Your task to perform on an android device: turn off notifications settings in the gmail app Image 0: 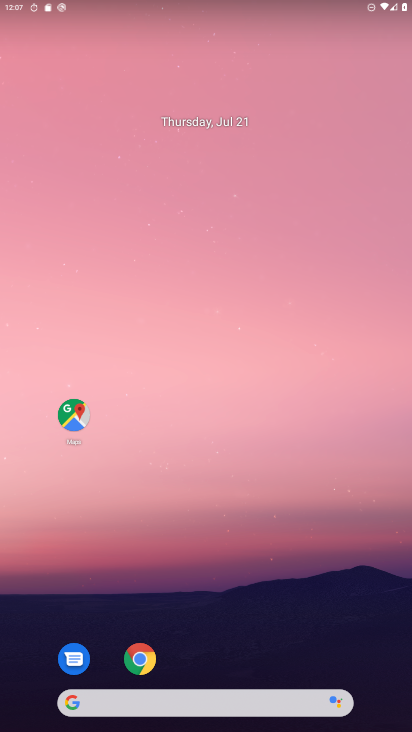
Step 0: drag from (242, 140) to (242, 89)
Your task to perform on an android device: turn off notifications settings in the gmail app Image 1: 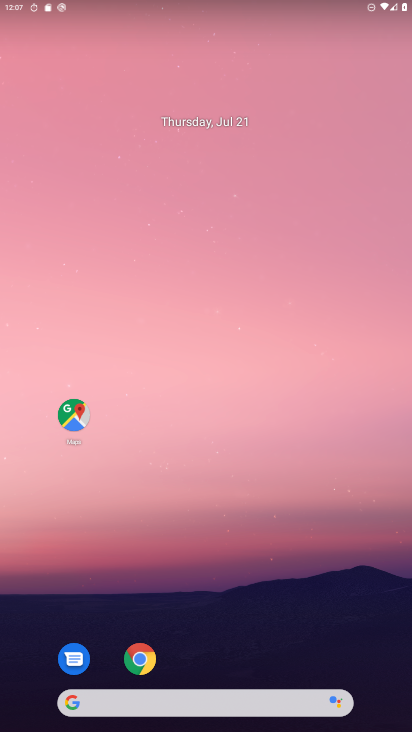
Step 1: drag from (278, 562) to (225, 56)
Your task to perform on an android device: turn off notifications settings in the gmail app Image 2: 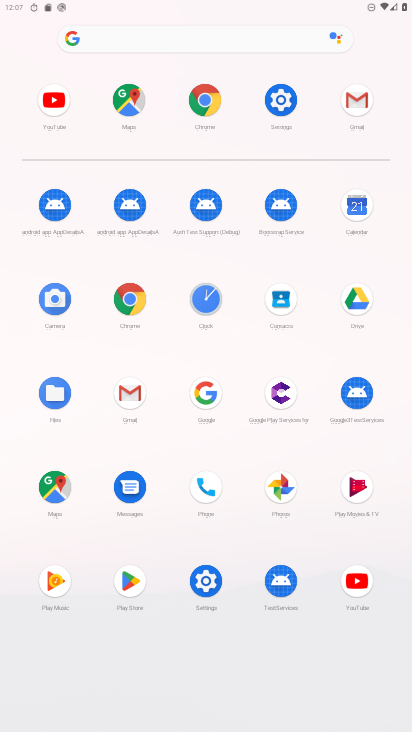
Step 2: click (355, 103)
Your task to perform on an android device: turn off notifications settings in the gmail app Image 3: 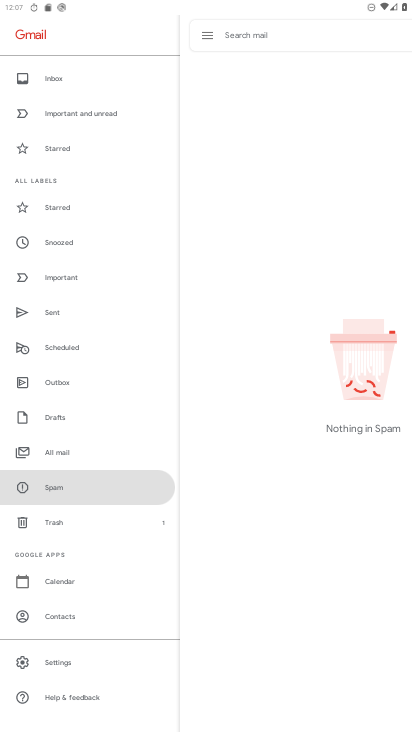
Step 3: click (71, 658)
Your task to perform on an android device: turn off notifications settings in the gmail app Image 4: 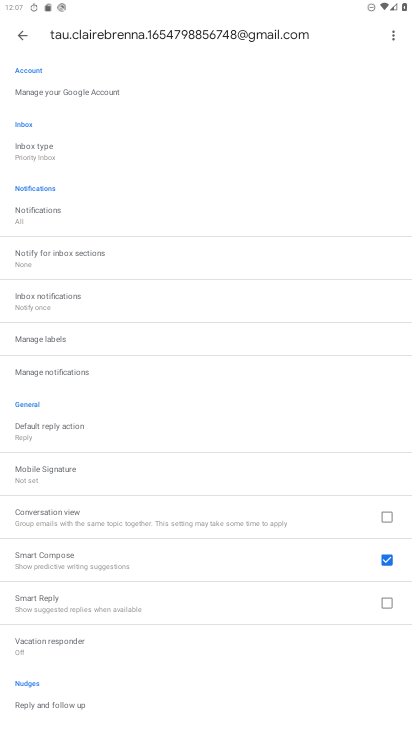
Step 4: click (66, 375)
Your task to perform on an android device: turn off notifications settings in the gmail app Image 5: 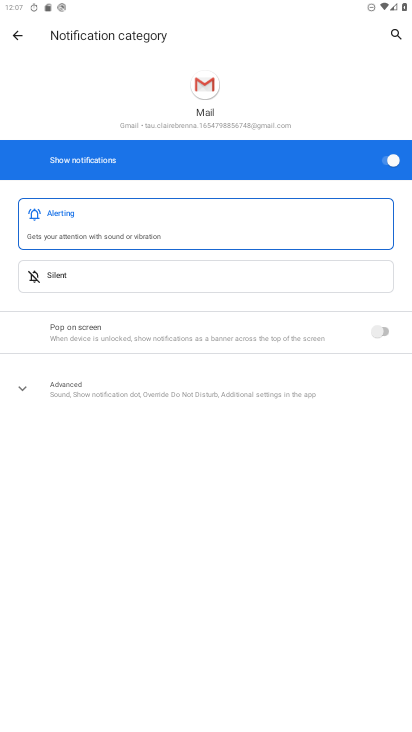
Step 5: click (383, 156)
Your task to perform on an android device: turn off notifications settings in the gmail app Image 6: 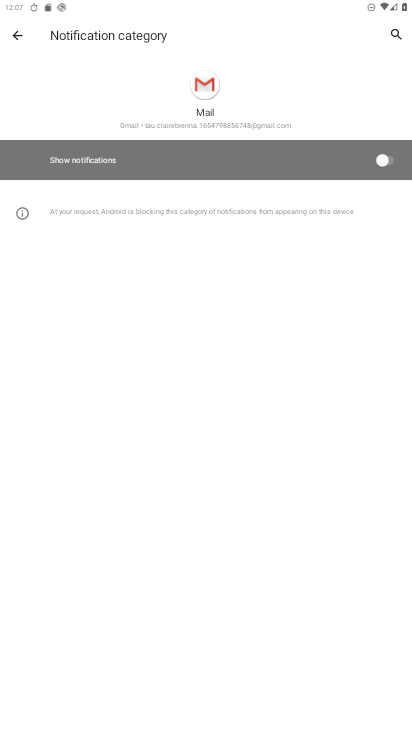
Step 6: task complete